Your task to perform on an android device: turn on translation in the chrome app Image 0: 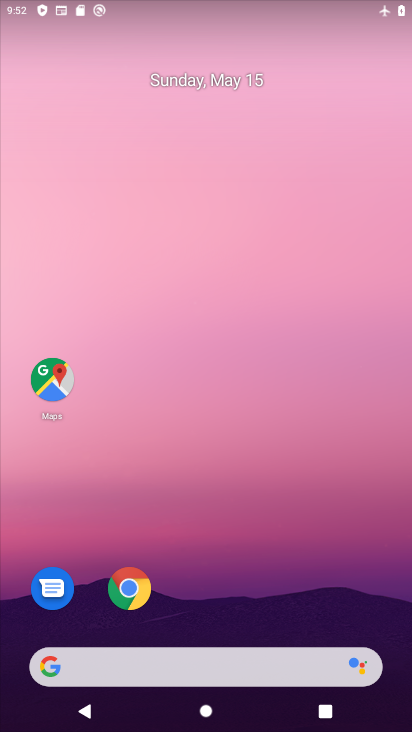
Step 0: click (138, 594)
Your task to perform on an android device: turn on translation in the chrome app Image 1: 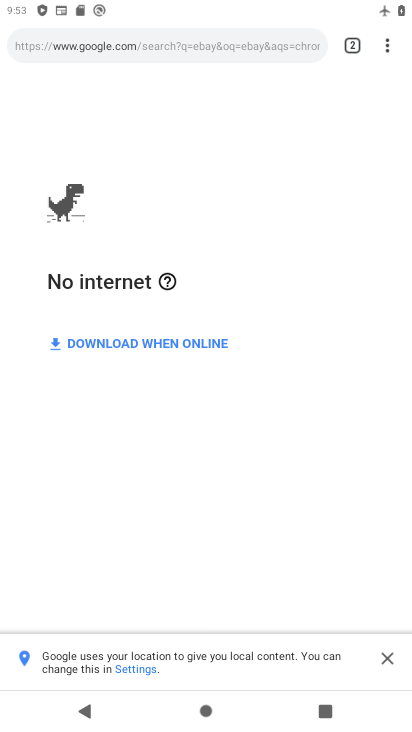
Step 1: click (389, 45)
Your task to perform on an android device: turn on translation in the chrome app Image 2: 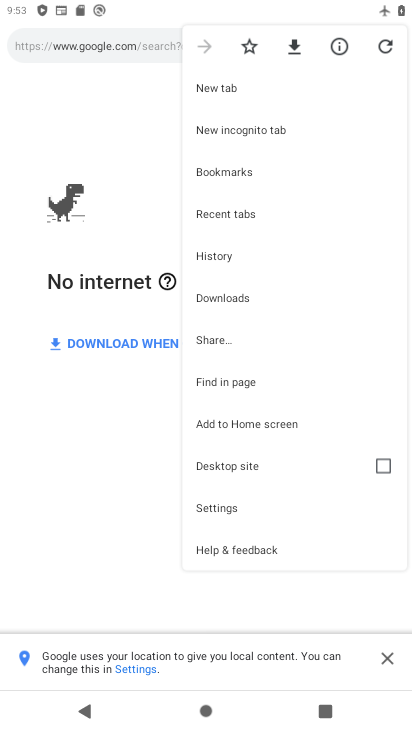
Step 2: click (214, 509)
Your task to perform on an android device: turn on translation in the chrome app Image 3: 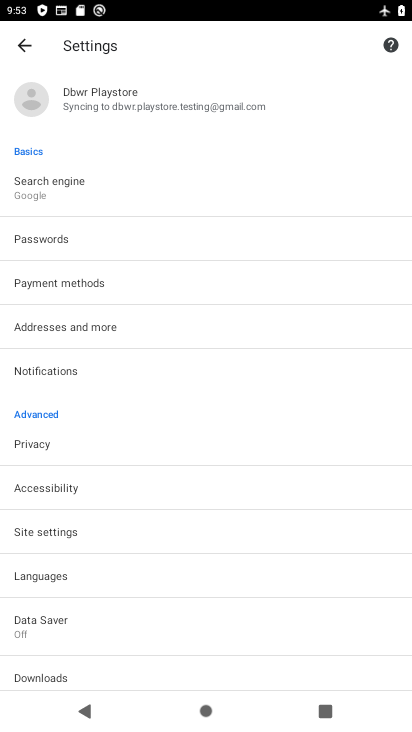
Step 3: click (126, 510)
Your task to perform on an android device: turn on translation in the chrome app Image 4: 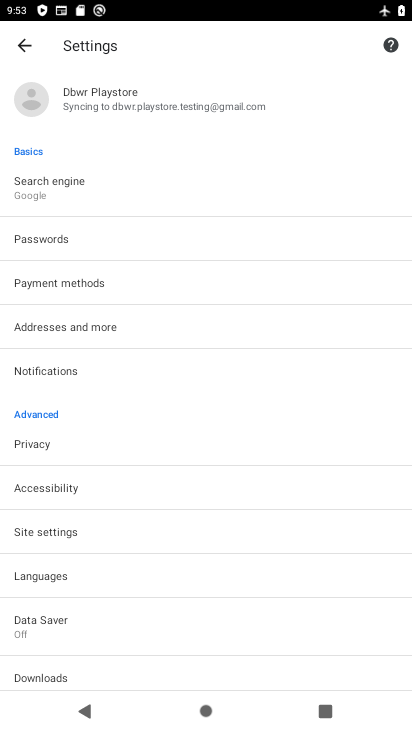
Step 4: click (88, 579)
Your task to perform on an android device: turn on translation in the chrome app Image 5: 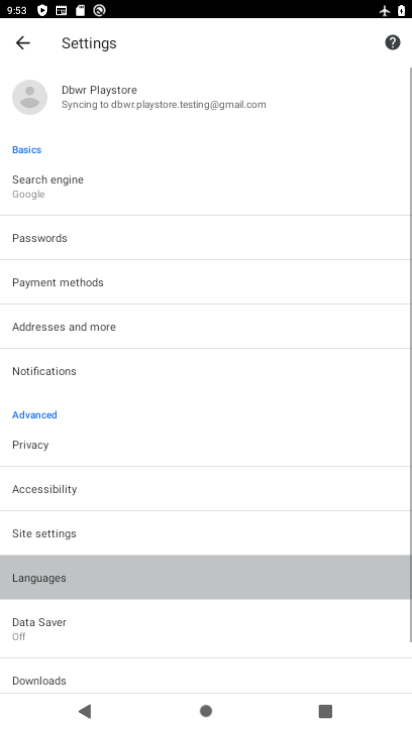
Step 5: click (104, 304)
Your task to perform on an android device: turn on translation in the chrome app Image 6: 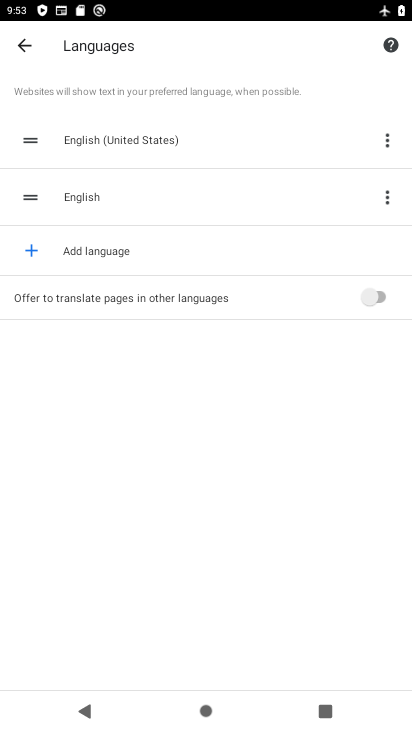
Step 6: click (384, 306)
Your task to perform on an android device: turn on translation in the chrome app Image 7: 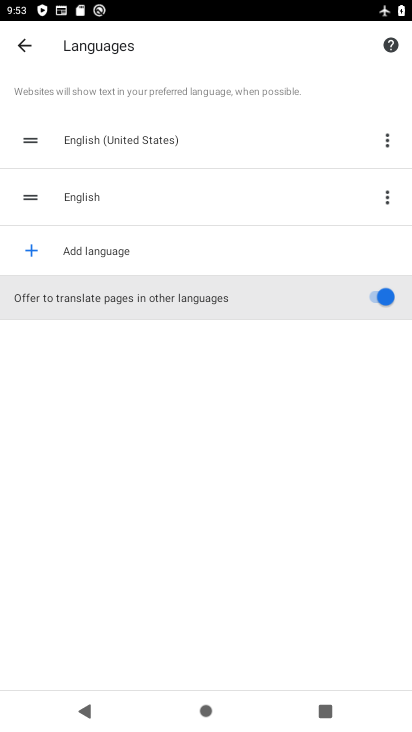
Step 7: click (380, 293)
Your task to perform on an android device: turn on translation in the chrome app Image 8: 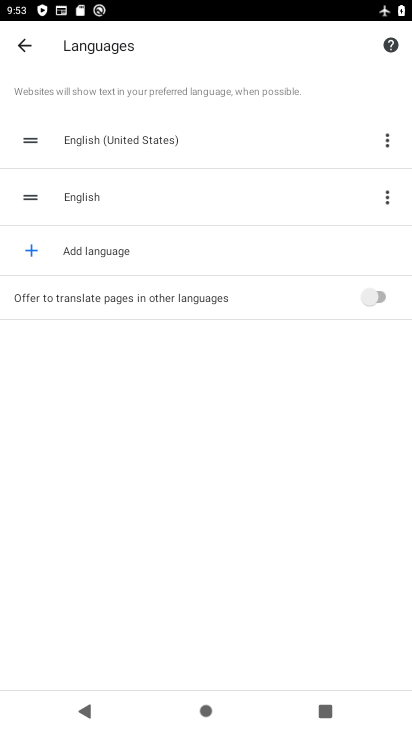
Step 8: click (387, 292)
Your task to perform on an android device: turn on translation in the chrome app Image 9: 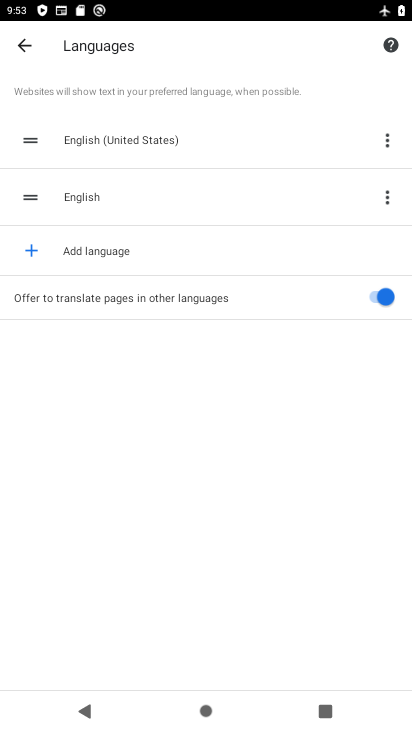
Step 9: task complete